Your task to perform on an android device: turn vacation reply on in the gmail app Image 0: 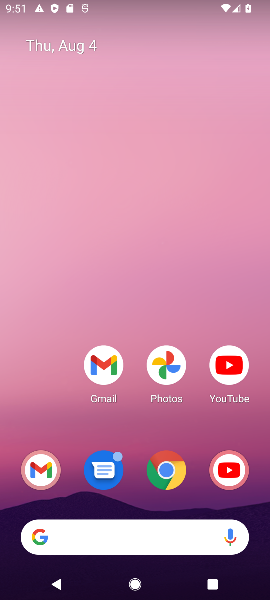
Step 0: click (106, 366)
Your task to perform on an android device: turn vacation reply on in the gmail app Image 1: 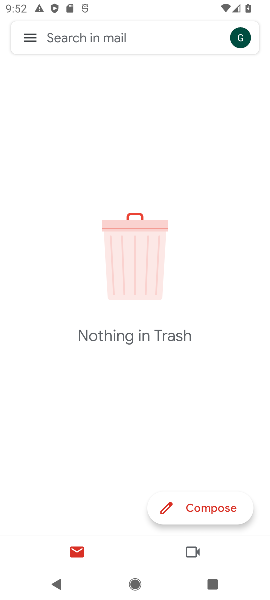
Step 1: click (33, 43)
Your task to perform on an android device: turn vacation reply on in the gmail app Image 2: 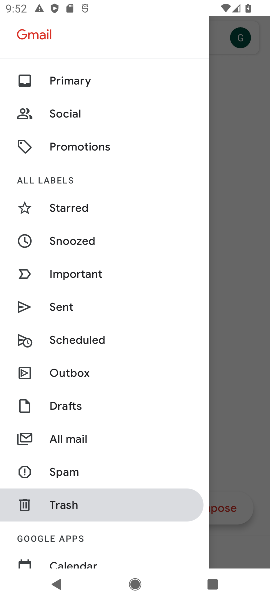
Step 2: drag from (151, 518) to (153, 211)
Your task to perform on an android device: turn vacation reply on in the gmail app Image 3: 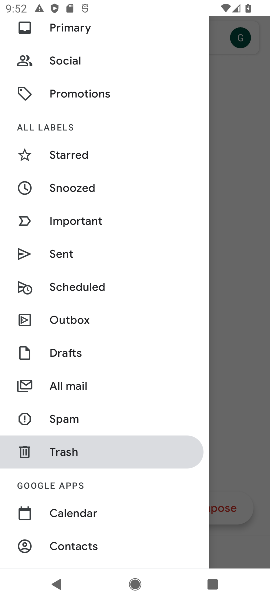
Step 3: drag from (136, 537) to (129, 158)
Your task to perform on an android device: turn vacation reply on in the gmail app Image 4: 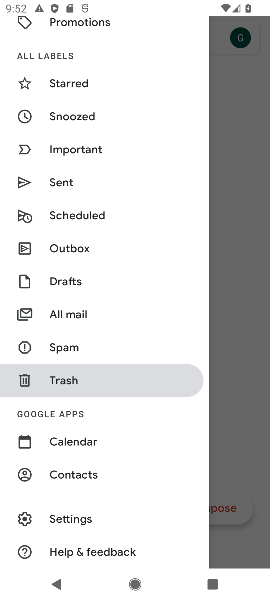
Step 4: click (74, 516)
Your task to perform on an android device: turn vacation reply on in the gmail app Image 5: 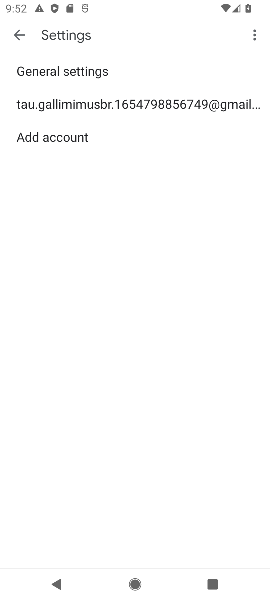
Step 5: click (139, 96)
Your task to perform on an android device: turn vacation reply on in the gmail app Image 6: 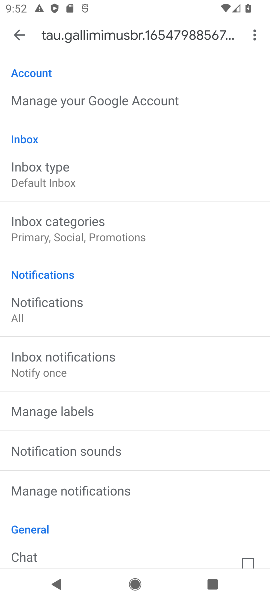
Step 6: drag from (98, 523) to (93, 212)
Your task to perform on an android device: turn vacation reply on in the gmail app Image 7: 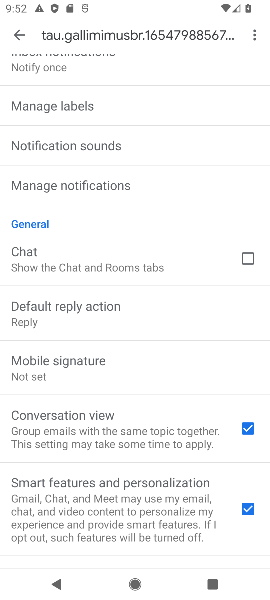
Step 7: drag from (144, 445) to (139, 198)
Your task to perform on an android device: turn vacation reply on in the gmail app Image 8: 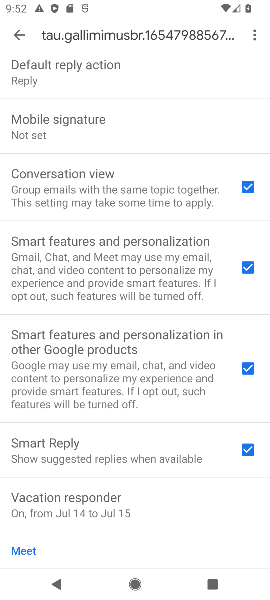
Step 8: click (215, 497)
Your task to perform on an android device: turn vacation reply on in the gmail app Image 9: 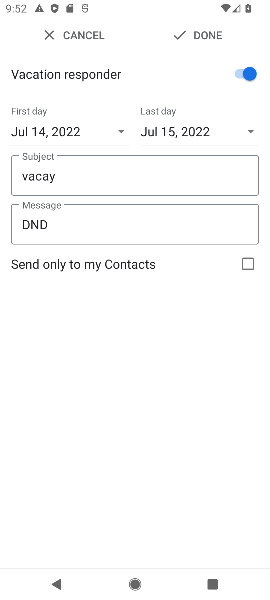
Step 9: click (213, 32)
Your task to perform on an android device: turn vacation reply on in the gmail app Image 10: 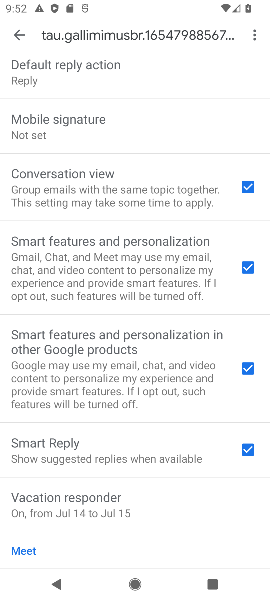
Step 10: task complete